Your task to perform on an android device: Show me popular videos on Youtube Image 0: 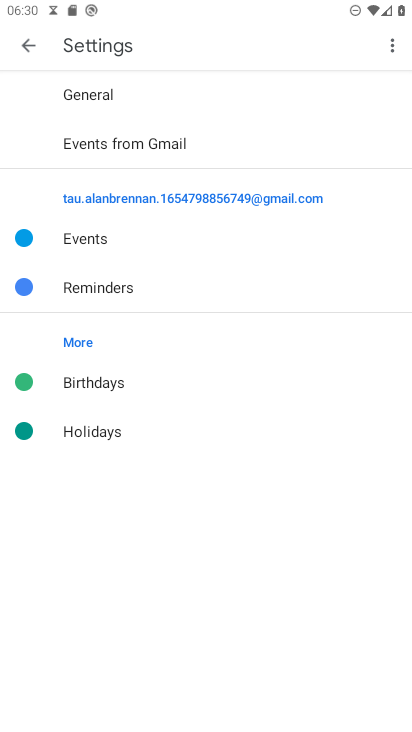
Step 0: press home button
Your task to perform on an android device: Show me popular videos on Youtube Image 1: 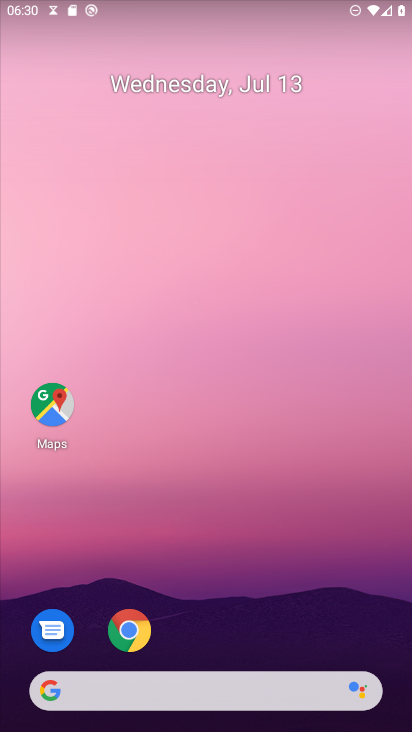
Step 1: drag from (333, 696) to (292, 114)
Your task to perform on an android device: Show me popular videos on Youtube Image 2: 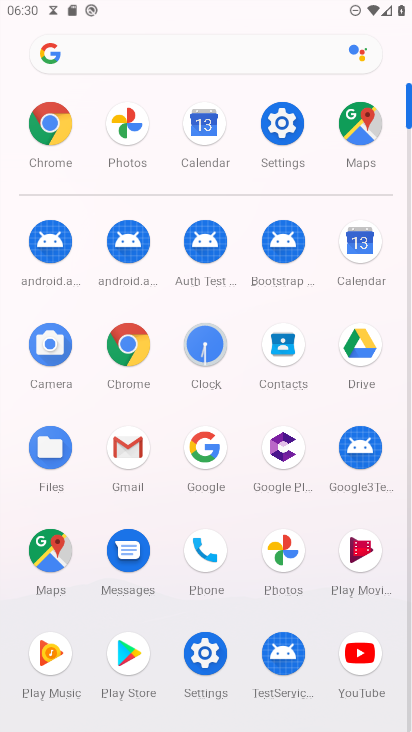
Step 2: click (360, 652)
Your task to perform on an android device: Show me popular videos on Youtube Image 3: 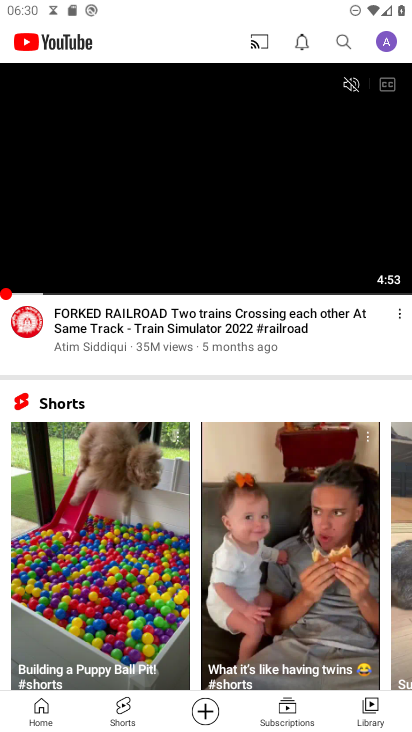
Step 3: task complete